Your task to perform on an android device: What's the weather going to be this weekend? Image 0: 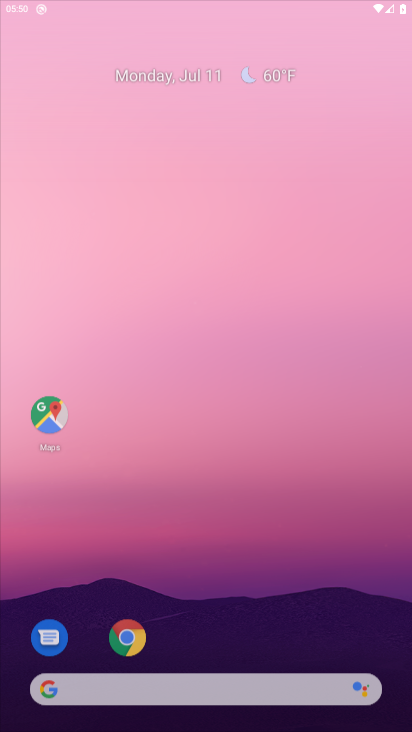
Step 0: click (247, 474)
Your task to perform on an android device: What's the weather going to be this weekend? Image 1: 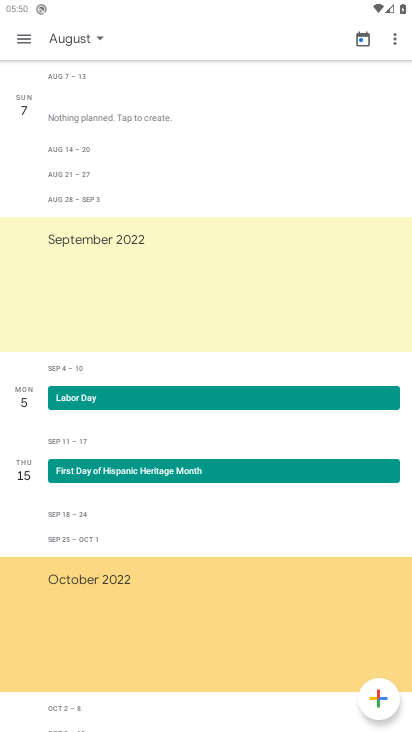
Step 1: press home button
Your task to perform on an android device: What's the weather going to be this weekend? Image 2: 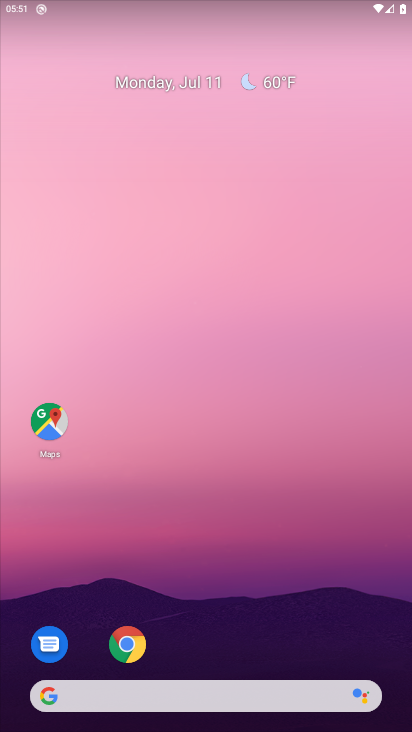
Step 2: drag from (182, 636) to (182, 263)
Your task to perform on an android device: What's the weather going to be this weekend? Image 3: 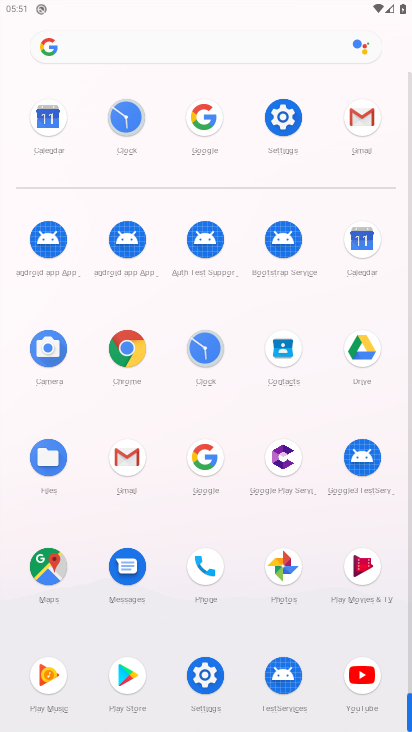
Step 3: click (207, 458)
Your task to perform on an android device: What's the weather going to be this weekend? Image 4: 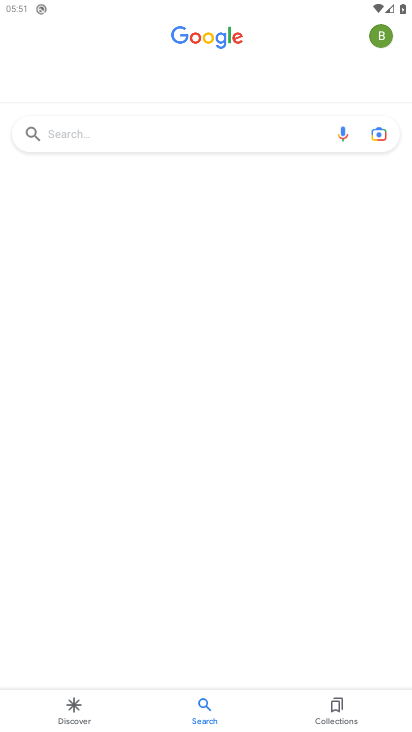
Step 4: click (81, 126)
Your task to perform on an android device: What's the weather going to be this weekend? Image 5: 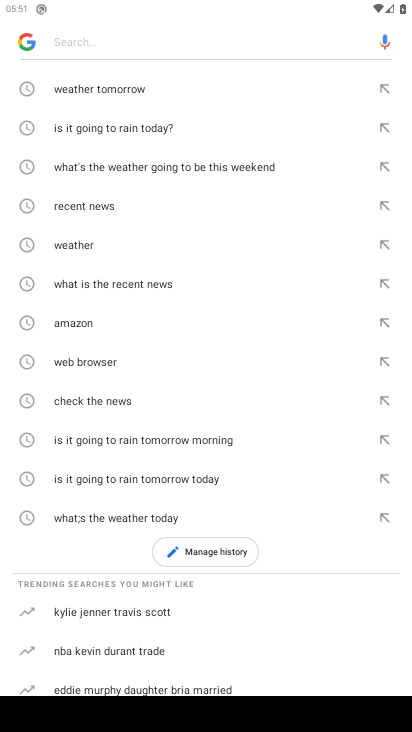
Step 5: click (131, 168)
Your task to perform on an android device: What's the weather going to be this weekend? Image 6: 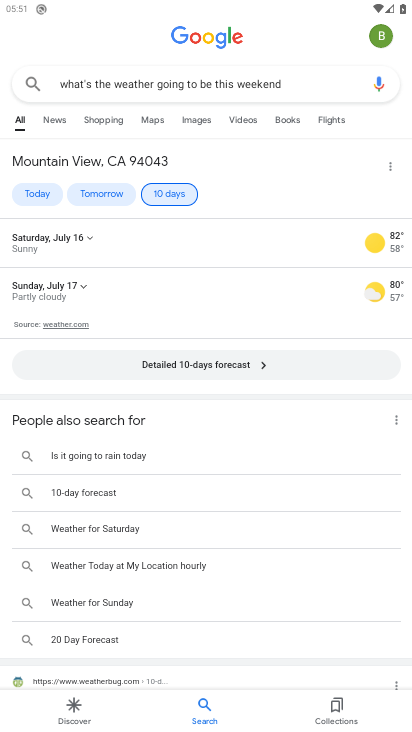
Step 6: click (211, 364)
Your task to perform on an android device: What's the weather going to be this weekend? Image 7: 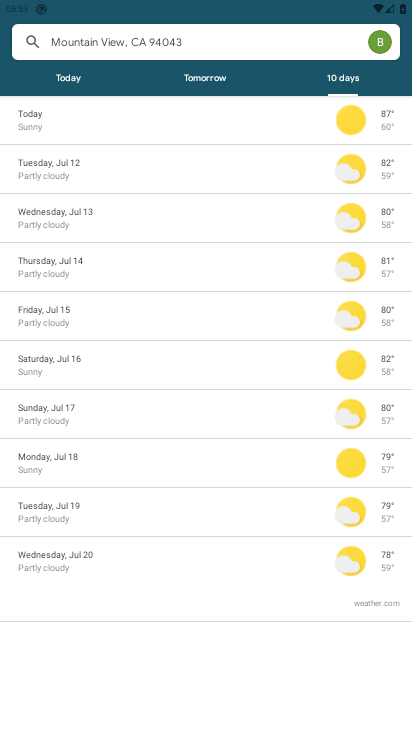
Step 7: task complete